Your task to perform on an android device: check the backup settings in the google photos Image 0: 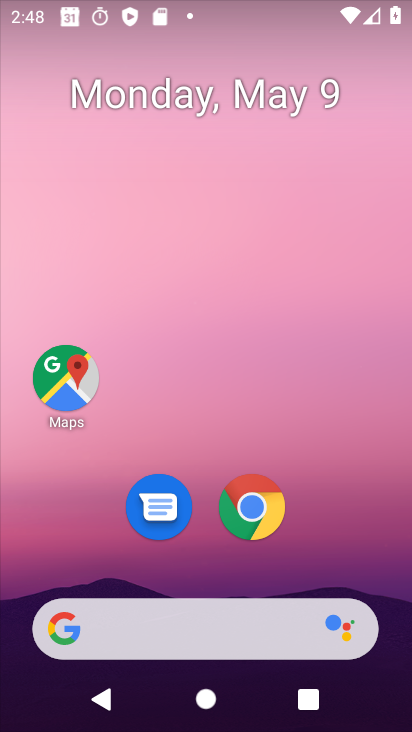
Step 0: drag from (285, 597) to (361, 133)
Your task to perform on an android device: check the backup settings in the google photos Image 1: 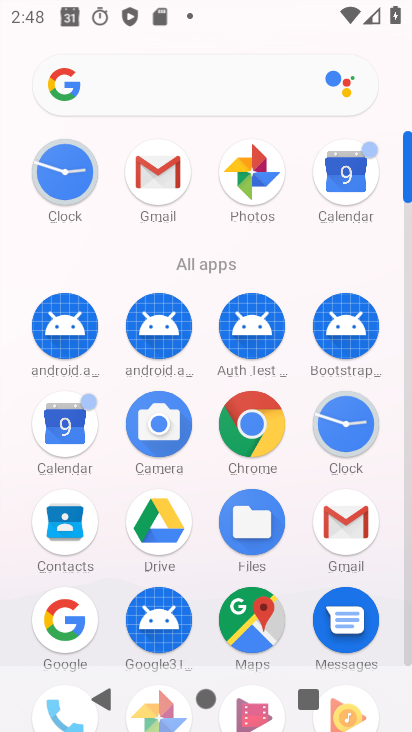
Step 1: click (265, 172)
Your task to perform on an android device: check the backup settings in the google photos Image 2: 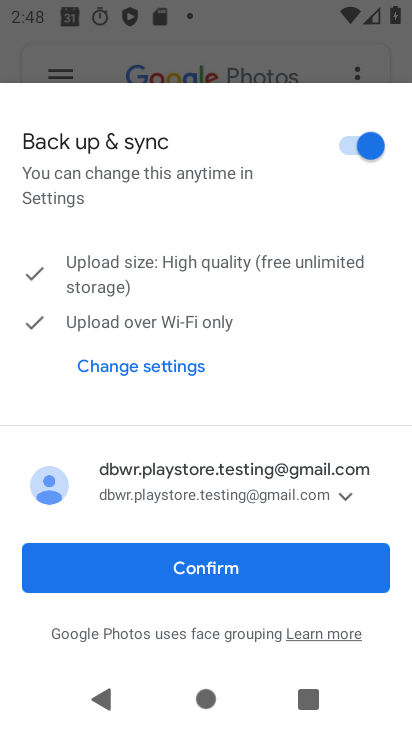
Step 2: click (54, 71)
Your task to perform on an android device: check the backup settings in the google photos Image 3: 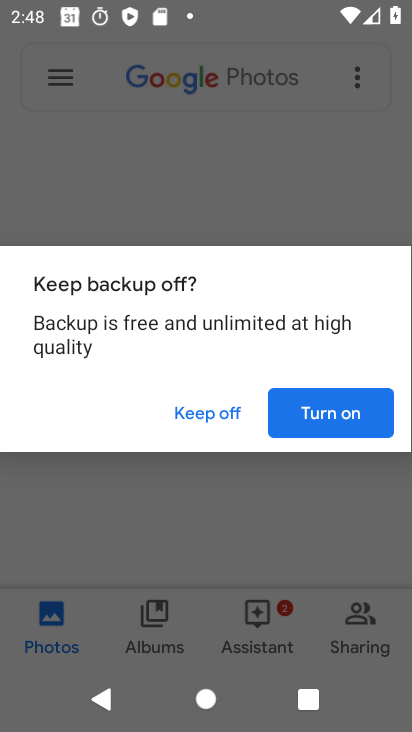
Step 3: click (239, 563)
Your task to perform on an android device: check the backup settings in the google photos Image 4: 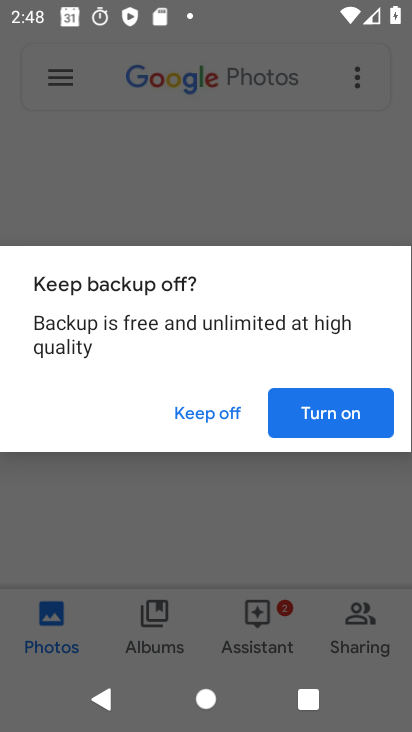
Step 4: click (298, 420)
Your task to perform on an android device: check the backup settings in the google photos Image 5: 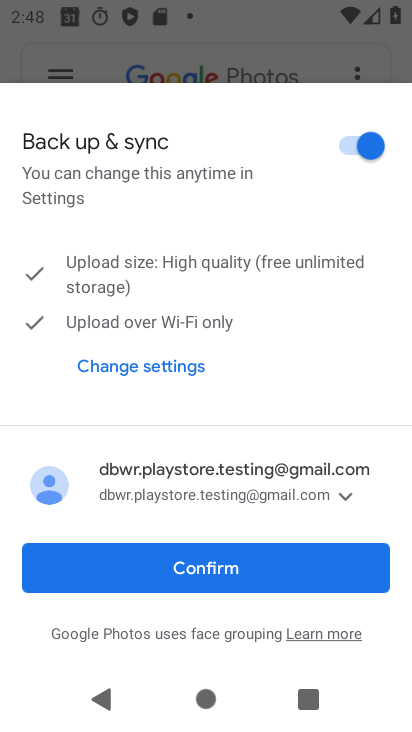
Step 5: click (305, 577)
Your task to perform on an android device: check the backup settings in the google photos Image 6: 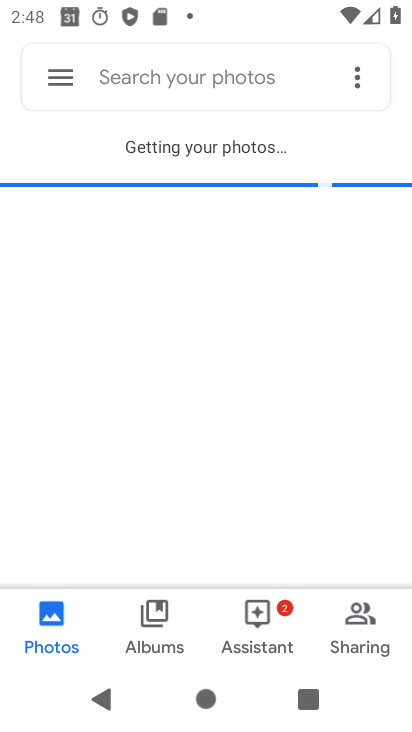
Step 6: click (59, 62)
Your task to perform on an android device: check the backup settings in the google photos Image 7: 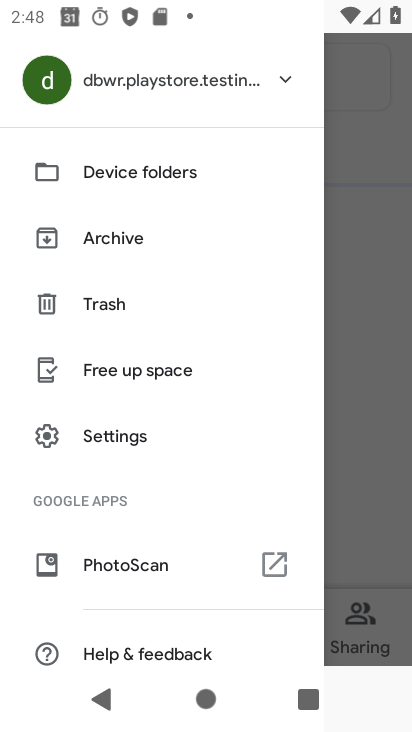
Step 7: click (134, 442)
Your task to perform on an android device: check the backup settings in the google photos Image 8: 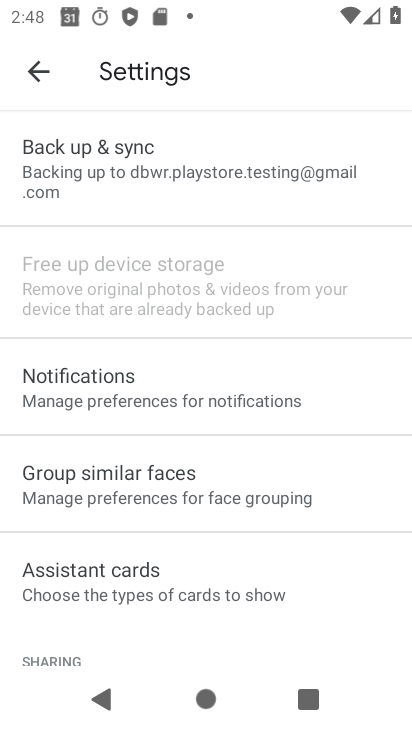
Step 8: click (138, 168)
Your task to perform on an android device: check the backup settings in the google photos Image 9: 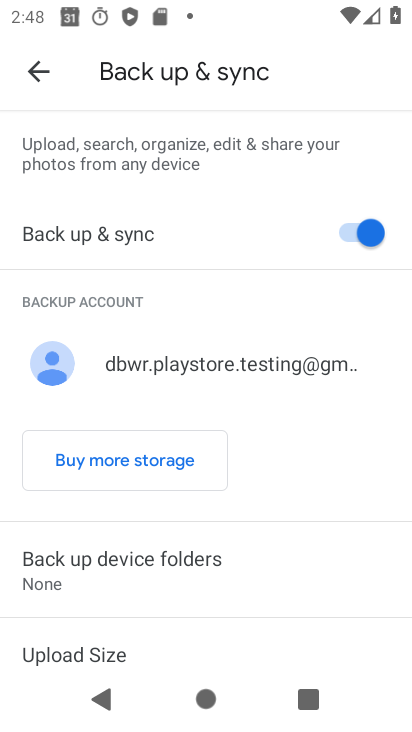
Step 9: task complete